Your task to perform on an android device: empty trash in the gmail app Image 0: 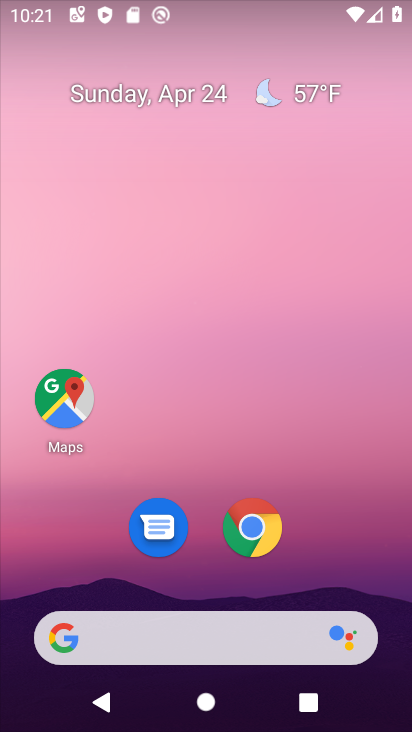
Step 0: click (150, 24)
Your task to perform on an android device: empty trash in the gmail app Image 1: 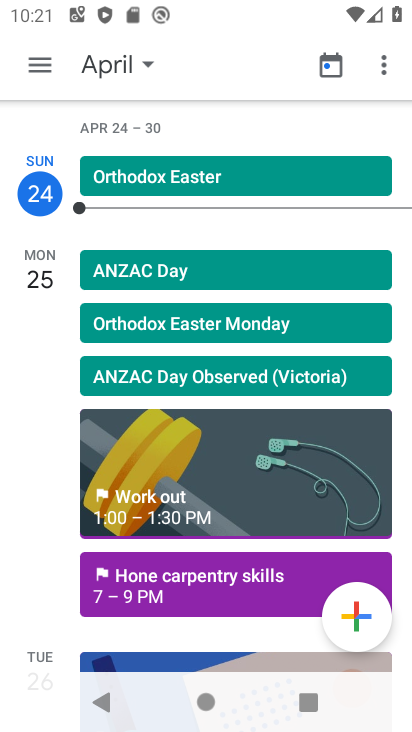
Step 1: press home button
Your task to perform on an android device: empty trash in the gmail app Image 2: 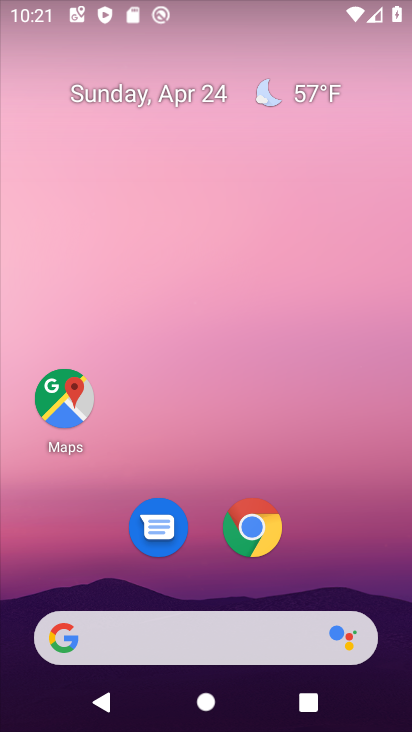
Step 2: drag from (261, 691) to (247, 184)
Your task to perform on an android device: empty trash in the gmail app Image 3: 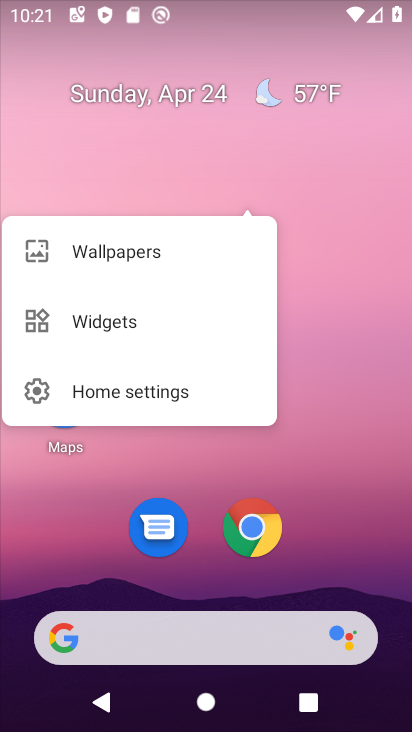
Step 3: drag from (274, 685) to (163, 123)
Your task to perform on an android device: empty trash in the gmail app Image 4: 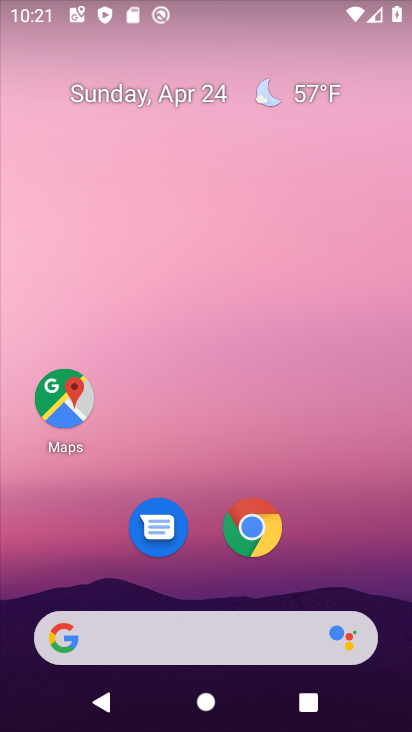
Step 4: drag from (248, 706) to (170, 209)
Your task to perform on an android device: empty trash in the gmail app Image 5: 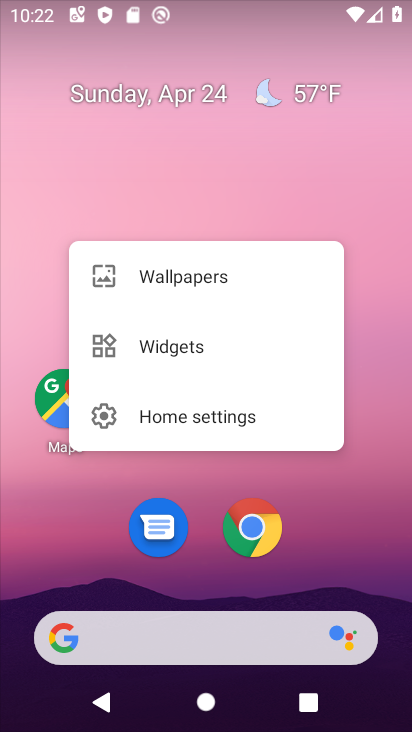
Step 5: click (203, 216)
Your task to perform on an android device: empty trash in the gmail app Image 6: 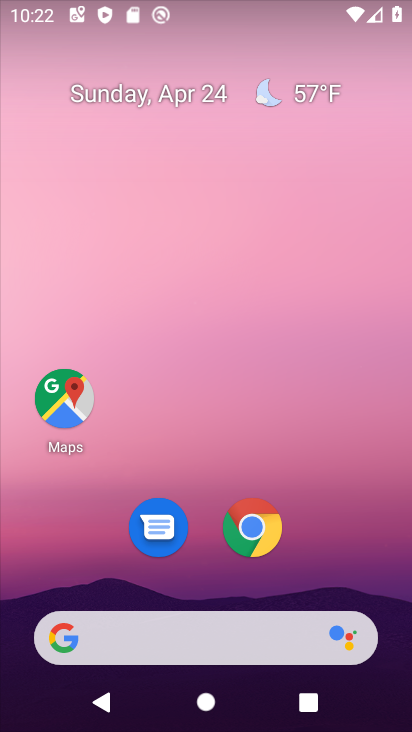
Step 6: drag from (217, 602) to (175, 39)
Your task to perform on an android device: empty trash in the gmail app Image 7: 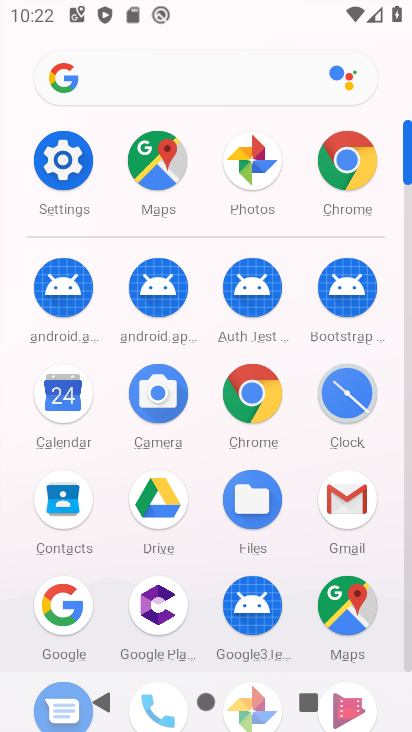
Step 7: drag from (227, 717) to (139, 4)
Your task to perform on an android device: empty trash in the gmail app Image 8: 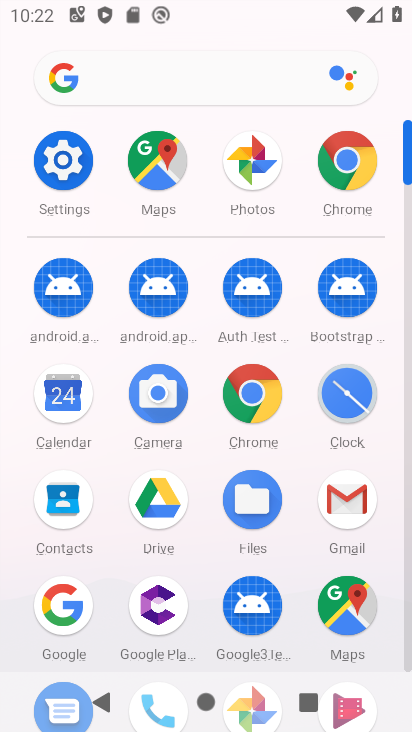
Step 8: click (346, 503)
Your task to perform on an android device: empty trash in the gmail app Image 9: 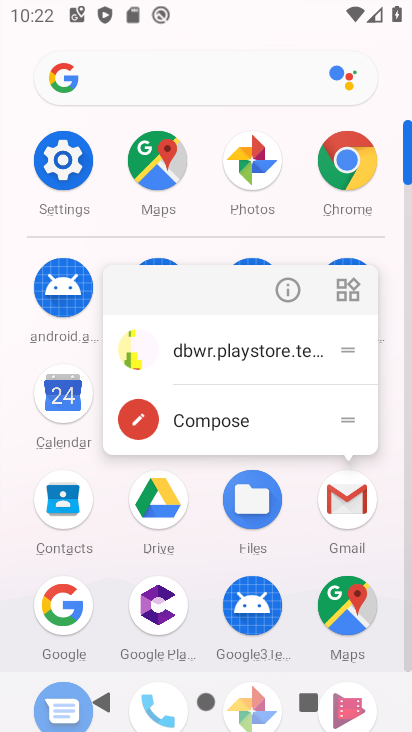
Step 9: click (203, 355)
Your task to perform on an android device: empty trash in the gmail app Image 10: 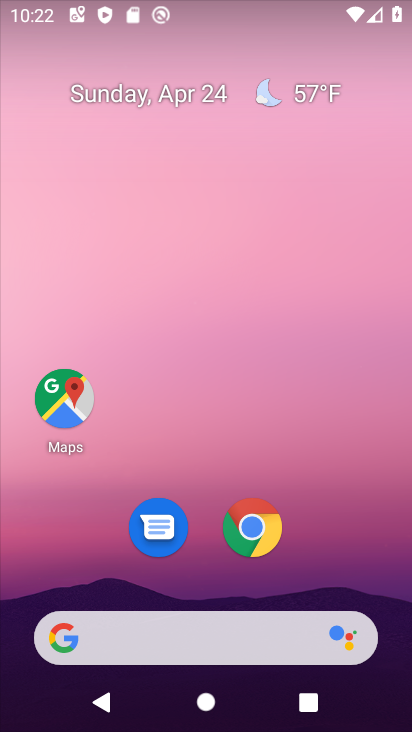
Step 10: drag from (253, 705) to (133, 108)
Your task to perform on an android device: empty trash in the gmail app Image 11: 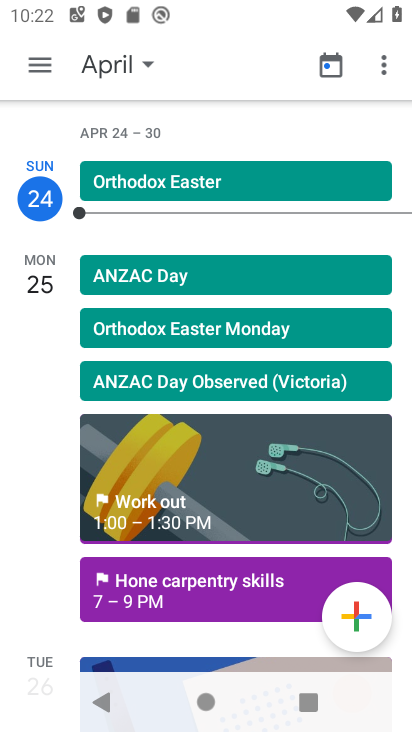
Step 11: press home button
Your task to perform on an android device: empty trash in the gmail app Image 12: 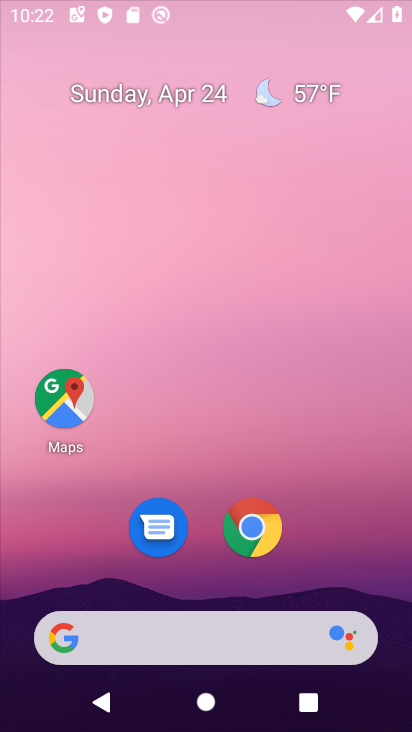
Step 12: press home button
Your task to perform on an android device: empty trash in the gmail app Image 13: 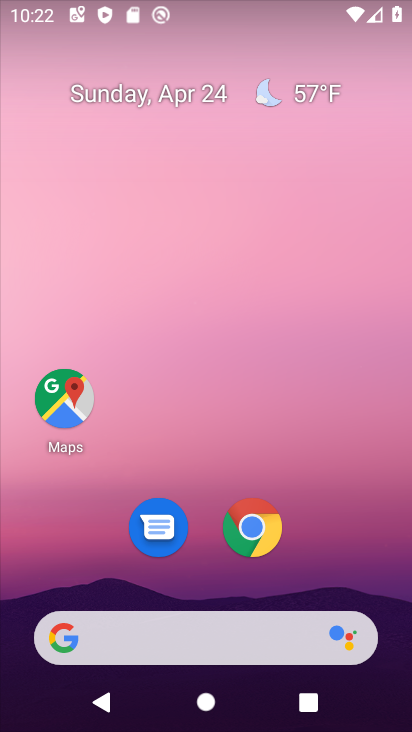
Step 13: press home button
Your task to perform on an android device: empty trash in the gmail app Image 14: 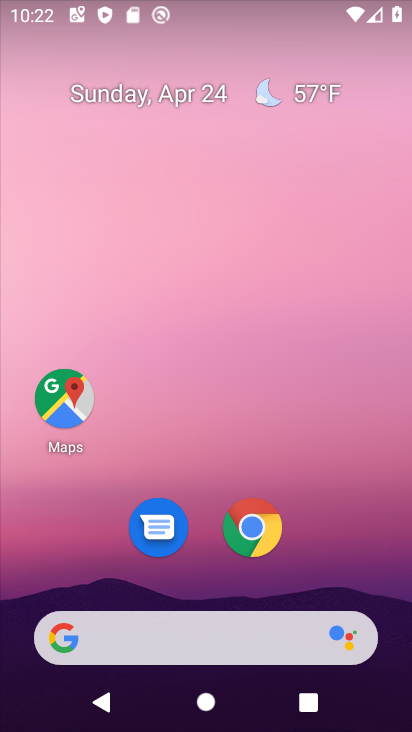
Step 14: click (100, 52)
Your task to perform on an android device: empty trash in the gmail app Image 15: 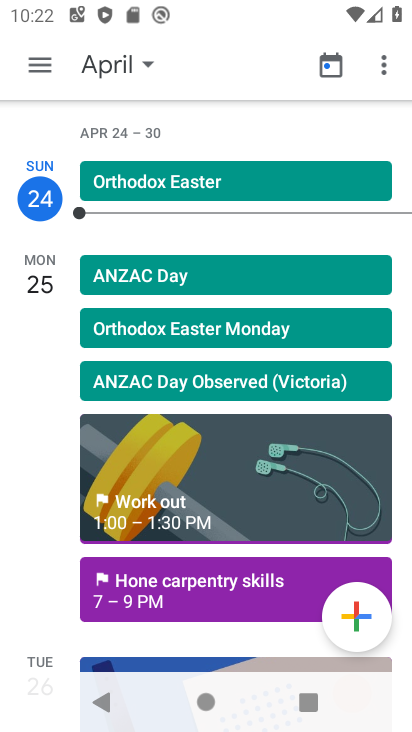
Step 15: press home button
Your task to perform on an android device: empty trash in the gmail app Image 16: 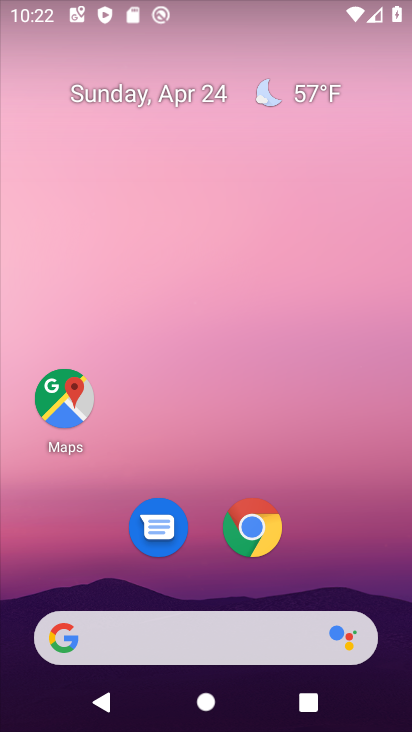
Step 16: drag from (276, 697) to (193, 115)
Your task to perform on an android device: empty trash in the gmail app Image 17: 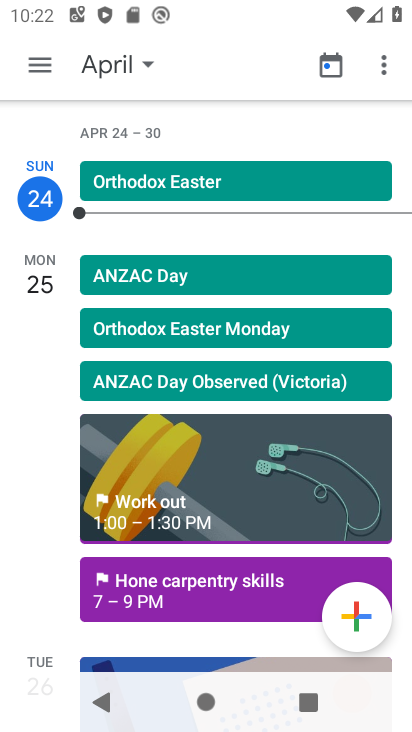
Step 17: press home button
Your task to perform on an android device: empty trash in the gmail app Image 18: 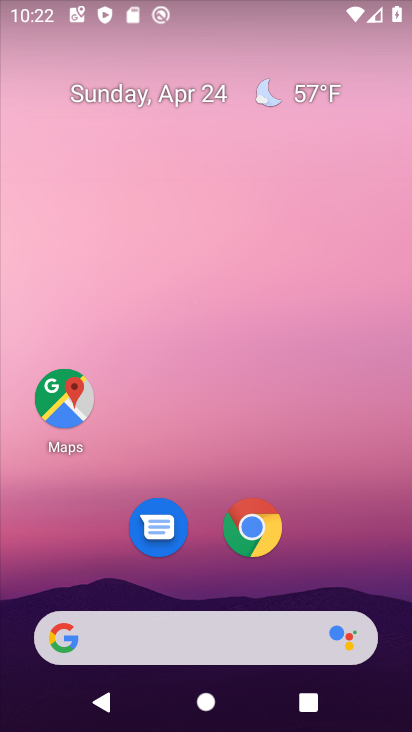
Step 18: drag from (254, 701) to (158, 3)
Your task to perform on an android device: empty trash in the gmail app Image 19: 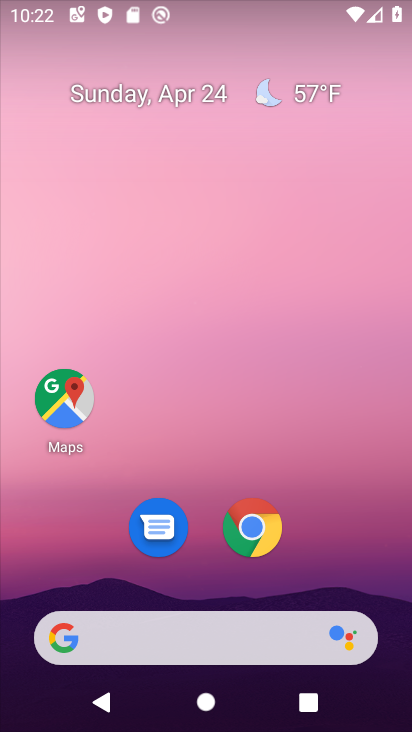
Step 19: click (154, 135)
Your task to perform on an android device: empty trash in the gmail app Image 20: 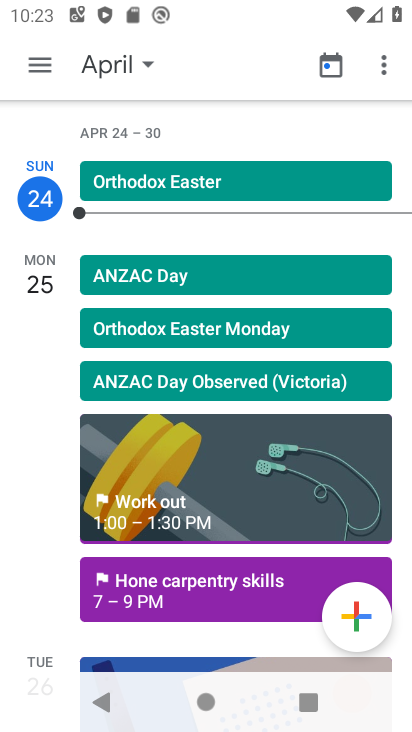
Step 20: press home button
Your task to perform on an android device: empty trash in the gmail app Image 21: 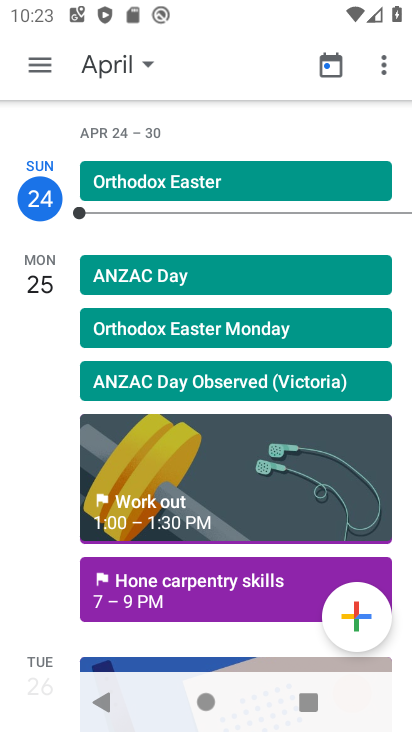
Step 21: press home button
Your task to perform on an android device: empty trash in the gmail app Image 22: 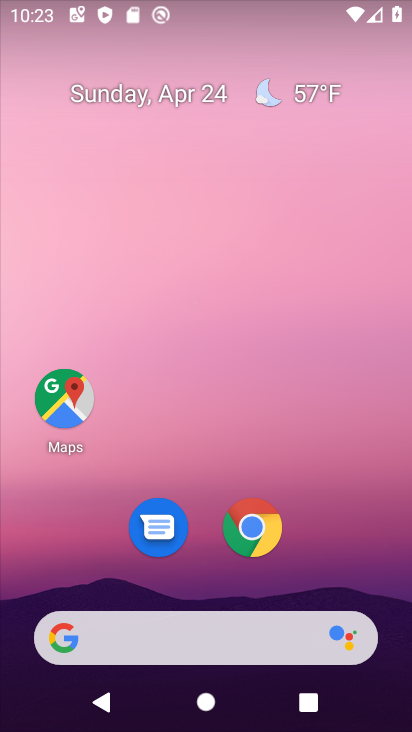
Step 22: drag from (256, 696) to (186, 165)
Your task to perform on an android device: empty trash in the gmail app Image 23: 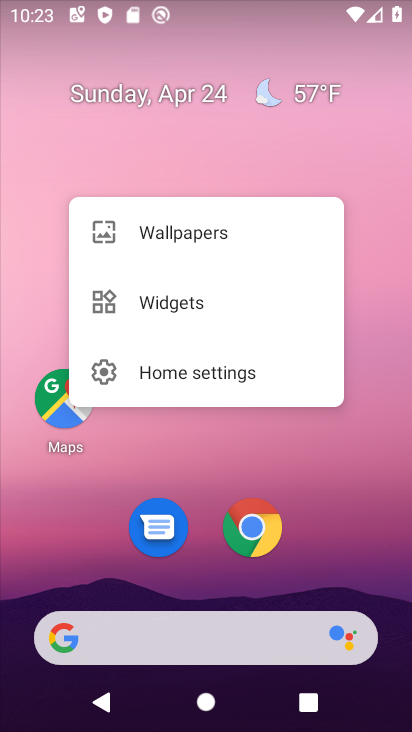
Step 23: click (323, 517)
Your task to perform on an android device: empty trash in the gmail app Image 24: 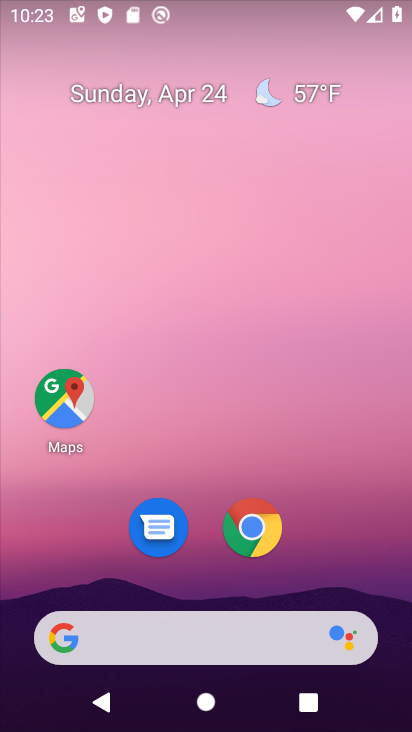
Step 24: drag from (170, 195) to (165, 159)
Your task to perform on an android device: empty trash in the gmail app Image 25: 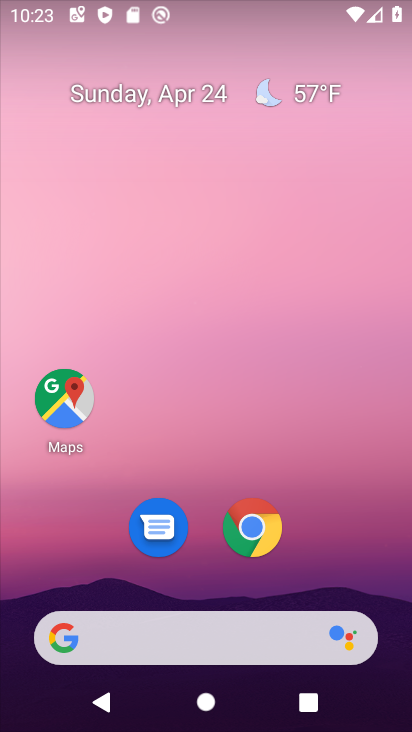
Step 25: drag from (260, 632) to (101, 58)
Your task to perform on an android device: empty trash in the gmail app Image 26: 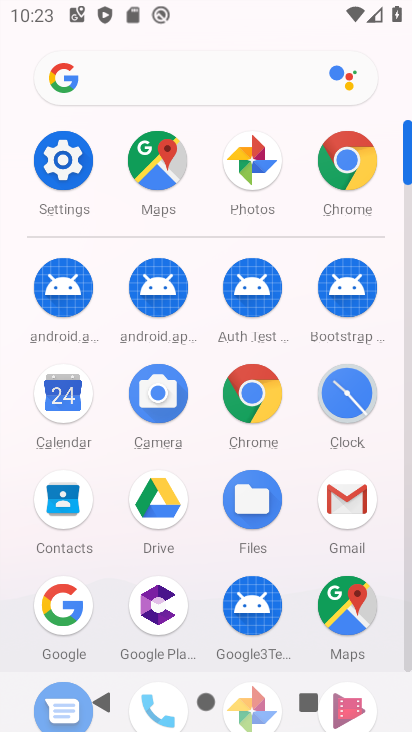
Step 26: drag from (217, 549) to (214, 19)
Your task to perform on an android device: empty trash in the gmail app Image 27: 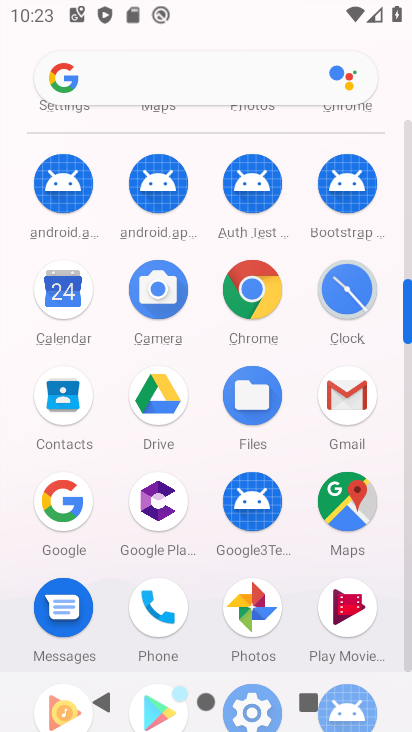
Step 27: click (357, 492)
Your task to perform on an android device: empty trash in the gmail app Image 28: 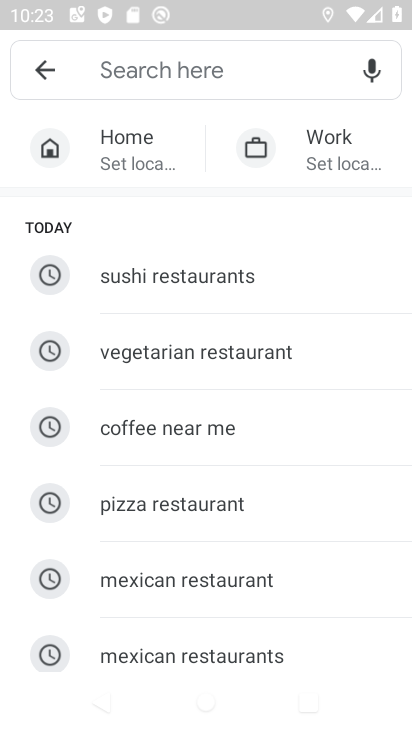
Step 28: click (43, 59)
Your task to perform on an android device: empty trash in the gmail app Image 29: 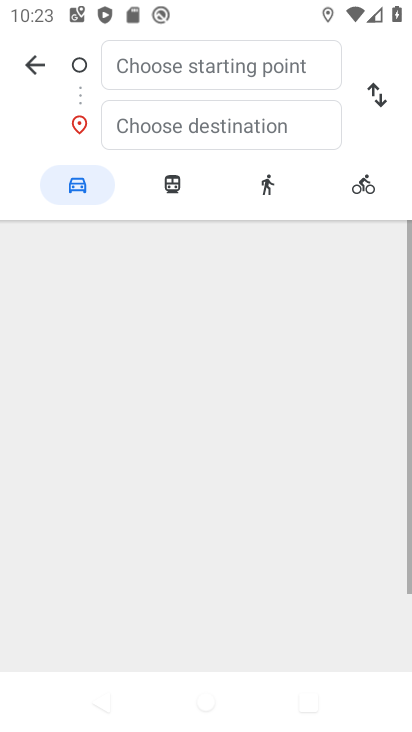
Step 29: click (41, 73)
Your task to perform on an android device: empty trash in the gmail app Image 30: 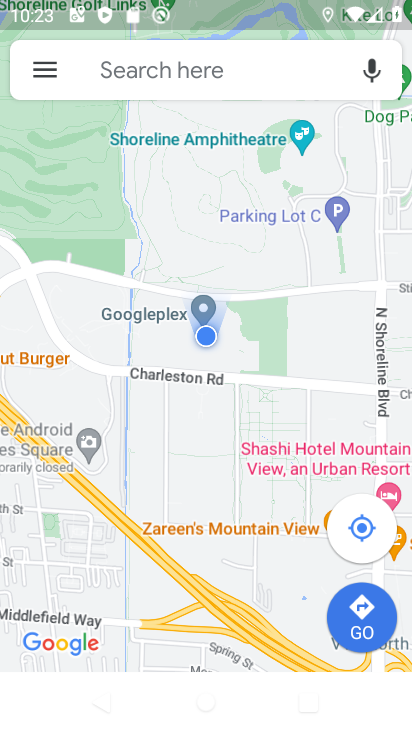
Step 30: press home button
Your task to perform on an android device: empty trash in the gmail app Image 31: 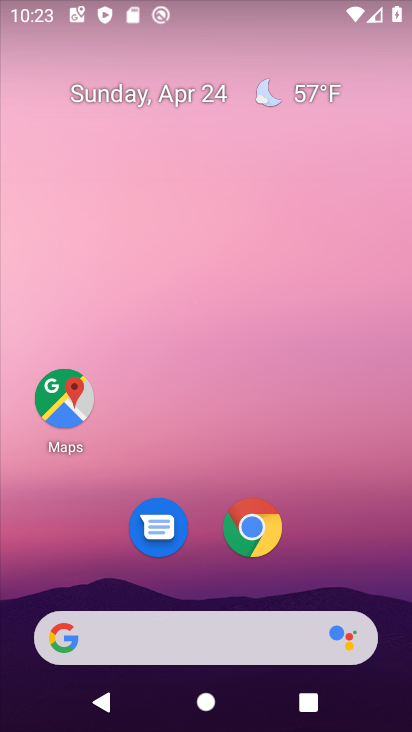
Step 31: drag from (235, 678) to (101, 235)
Your task to perform on an android device: empty trash in the gmail app Image 32: 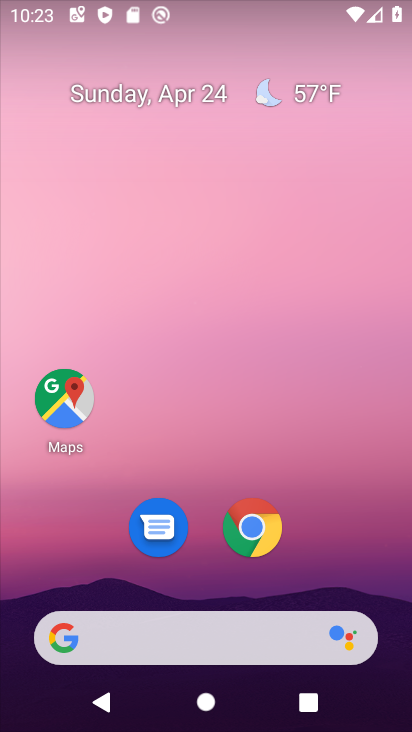
Step 32: drag from (231, 605) to (210, 28)
Your task to perform on an android device: empty trash in the gmail app Image 33: 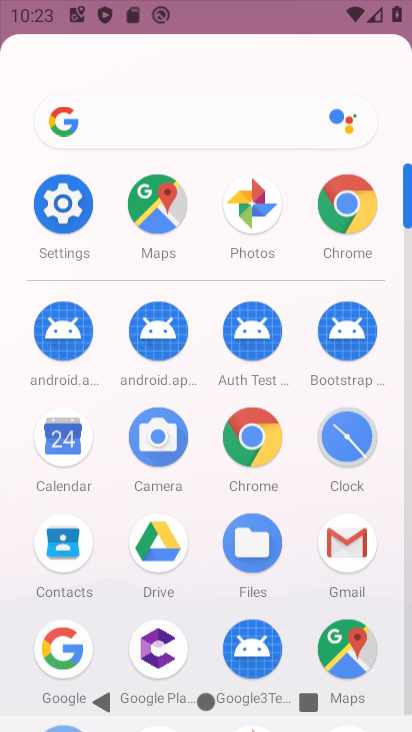
Step 33: drag from (244, 633) to (211, 5)
Your task to perform on an android device: empty trash in the gmail app Image 34: 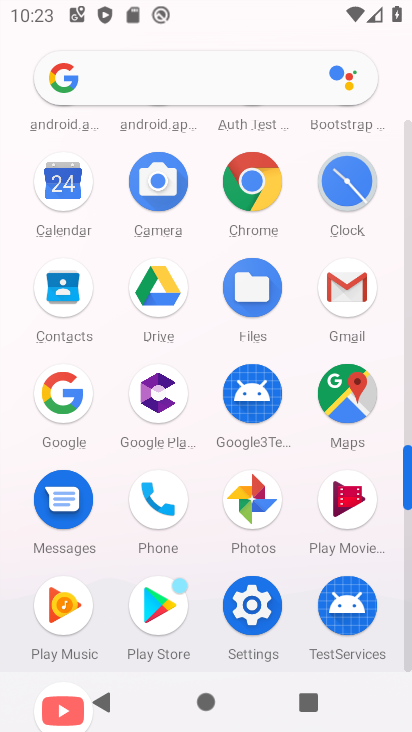
Step 34: click (348, 293)
Your task to perform on an android device: empty trash in the gmail app Image 35: 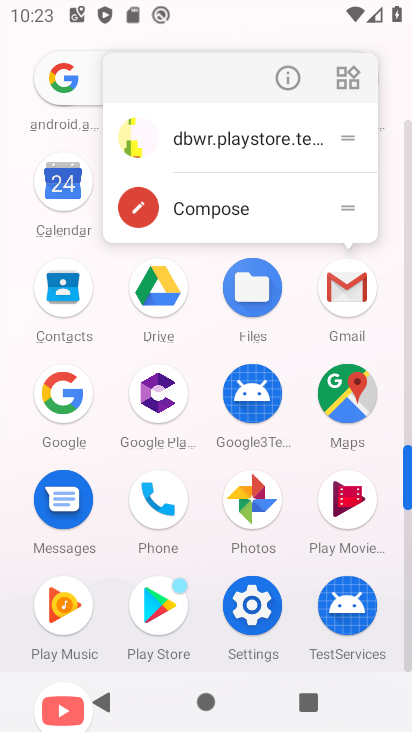
Step 35: click (325, 268)
Your task to perform on an android device: empty trash in the gmail app Image 36: 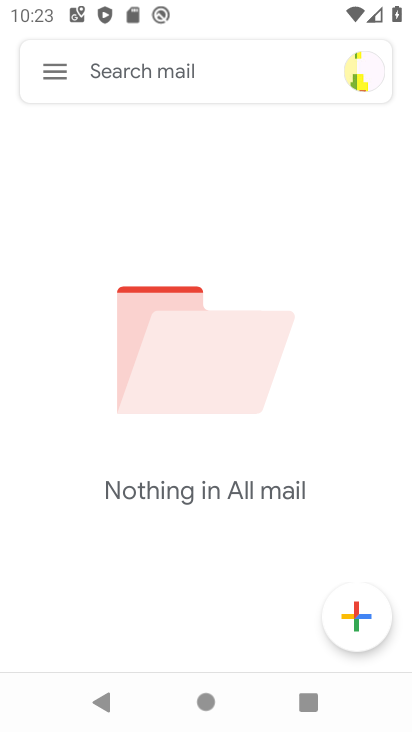
Step 36: drag from (50, 75) to (60, 147)
Your task to perform on an android device: empty trash in the gmail app Image 37: 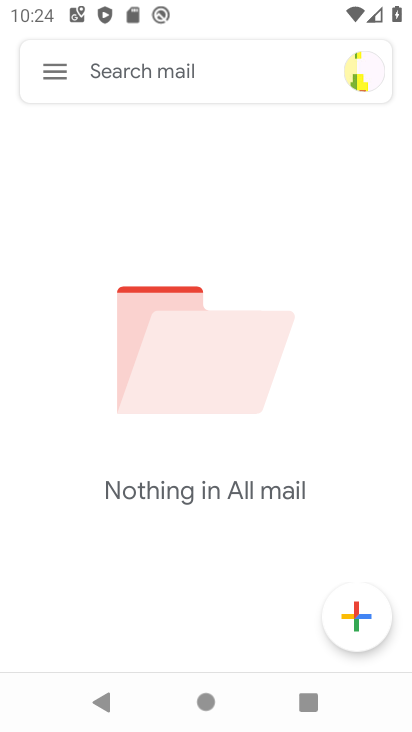
Step 37: click (55, 69)
Your task to perform on an android device: empty trash in the gmail app Image 38: 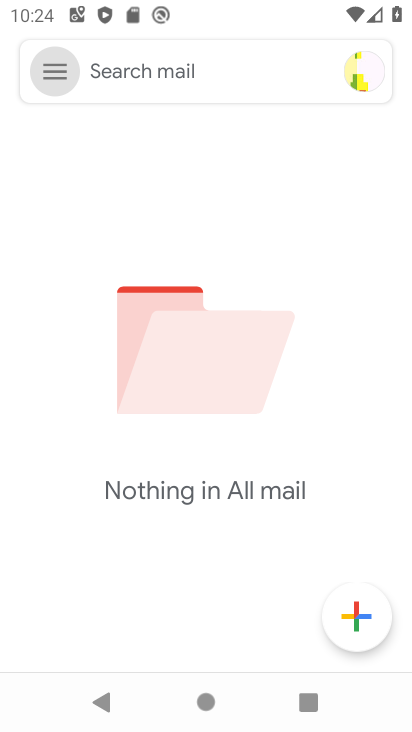
Step 38: click (58, 68)
Your task to perform on an android device: empty trash in the gmail app Image 39: 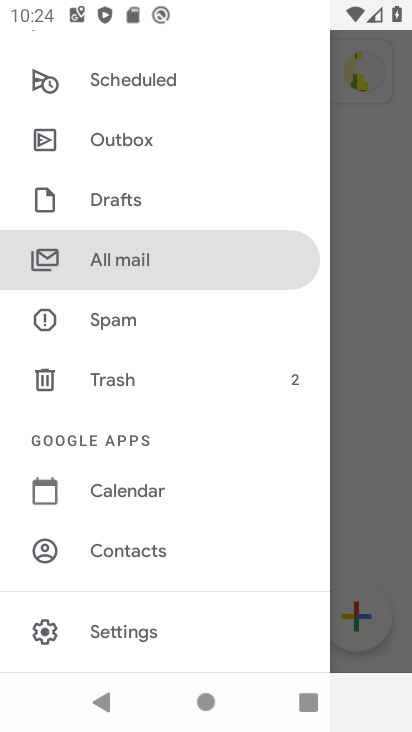
Step 39: click (114, 626)
Your task to perform on an android device: empty trash in the gmail app Image 40: 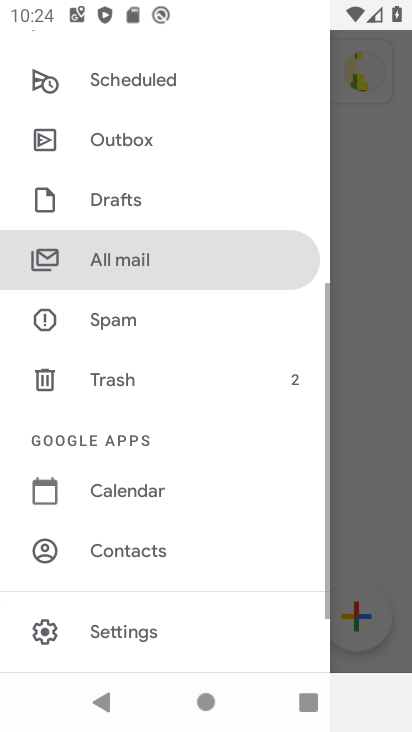
Step 40: click (108, 624)
Your task to perform on an android device: empty trash in the gmail app Image 41: 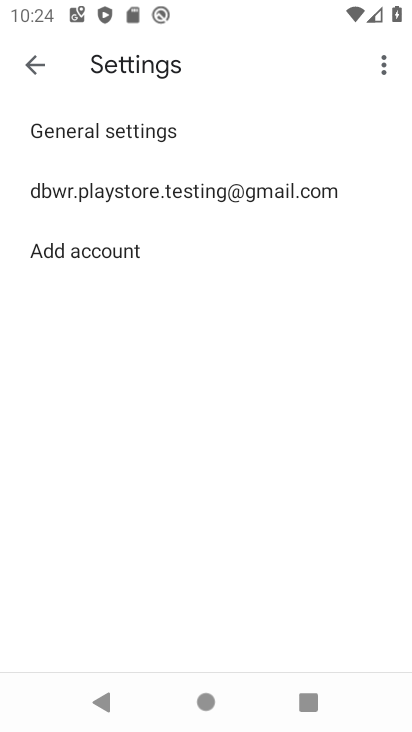
Step 41: click (125, 182)
Your task to perform on an android device: empty trash in the gmail app Image 42: 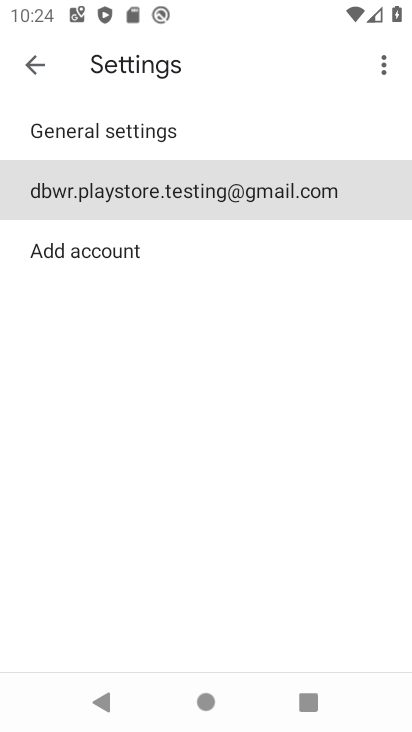
Step 42: click (127, 185)
Your task to perform on an android device: empty trash in the gmail app Image 43: 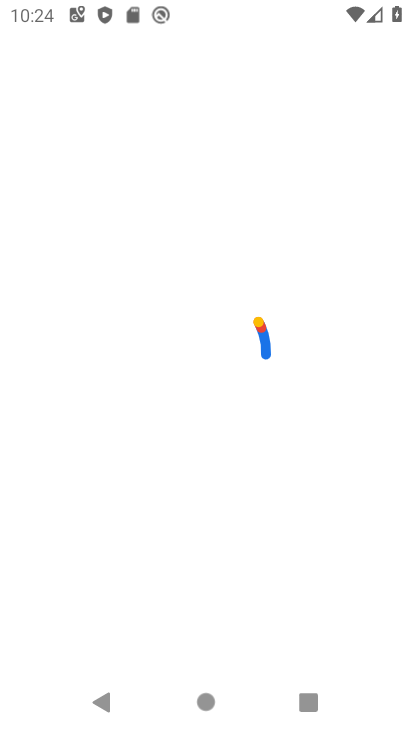
Step 43: drag from (147, 525) to (87, 155)
Your task to perform on an android device: empty trash in the gmail app Image 44: 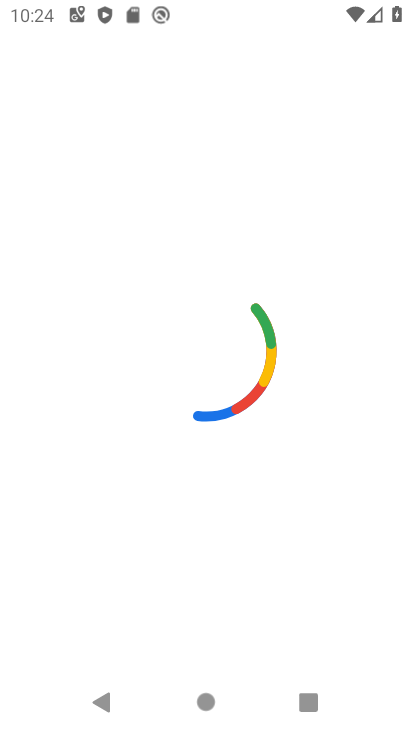
Step 44: press back button
Your task to perform on an android device: empty trash in the gmail app Image 45: 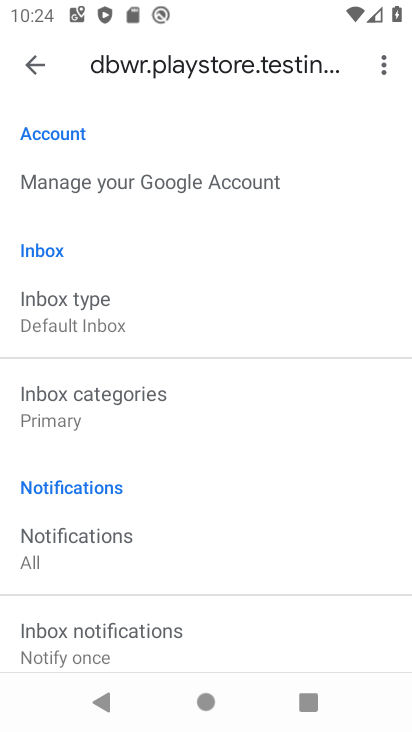
Step 45: drag from (89, 361) to (8, 78)
Your task to perform on an android device: empty trash in the gmail app Image 46: 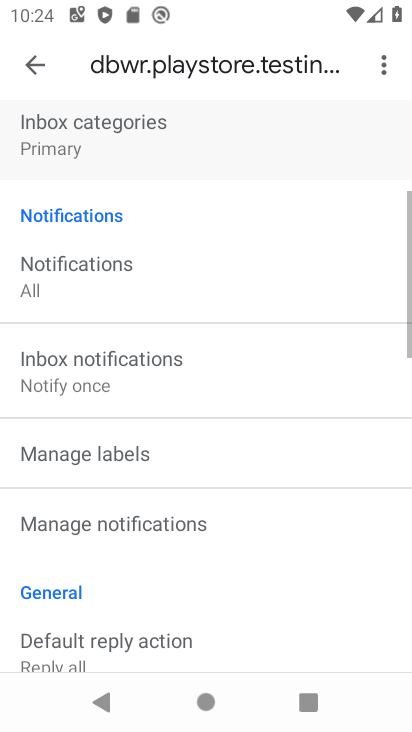
Step 46: drag from (86, 509) to (67, 6)
Your task to perform on an android device: empty trash in the gmail app Image 47: 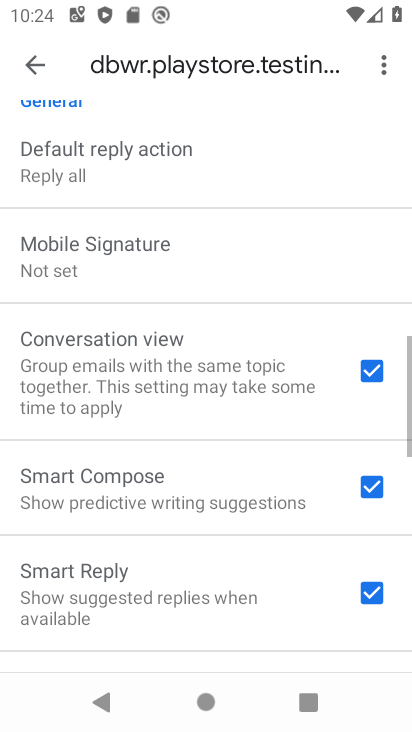
Step 47: drag from (49, 169) to (155, 609)
Your task to perform on an android device: empty trash in the gmail app Image 48: 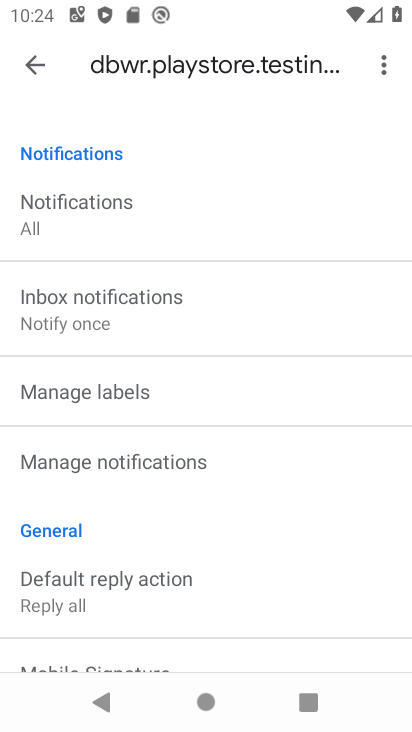
Step 48: click (30, 67)
Your task to perform on an android device: empty trash in the gmail app Image 49: 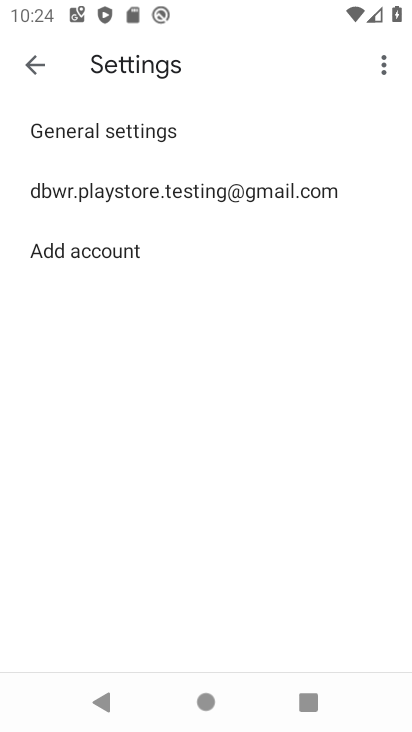
Step 49: click (32, 57)
Your task to perform on an android device: empty trash in the gmail app Image 50: 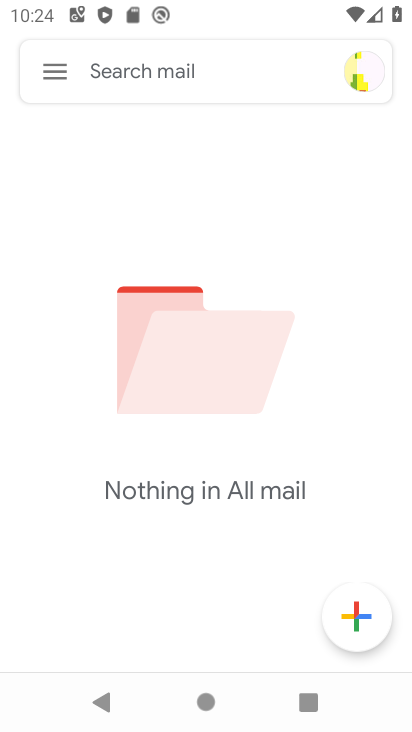
Step 50: click (55, 66)
Your task to perform on an android device: empty trash in the gmail app Image 51: 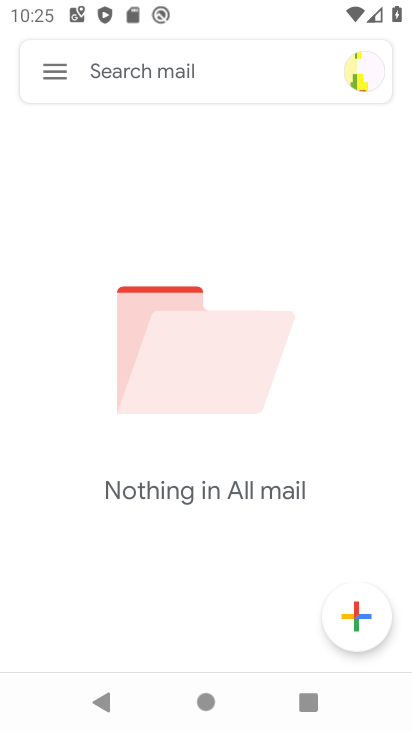
Step 51: click (61, 61)
Your task to perform on an android device: empty trash in the gmail app Image 52: 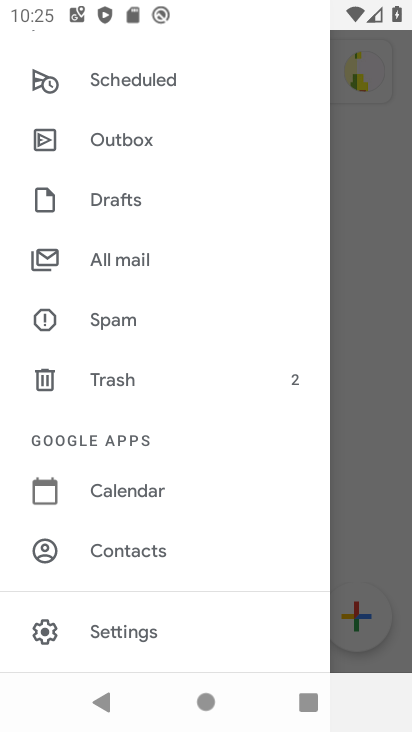
Step 52: click (114, 375)
Your task to perform on an android device: empty trash in the gmail app Image 53: 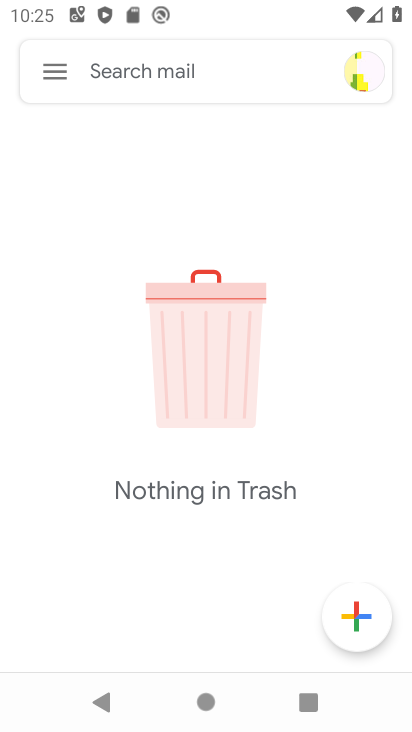
Step 53: task complete